Your task to perform on an android device: Go to Reddit.com Image 0: 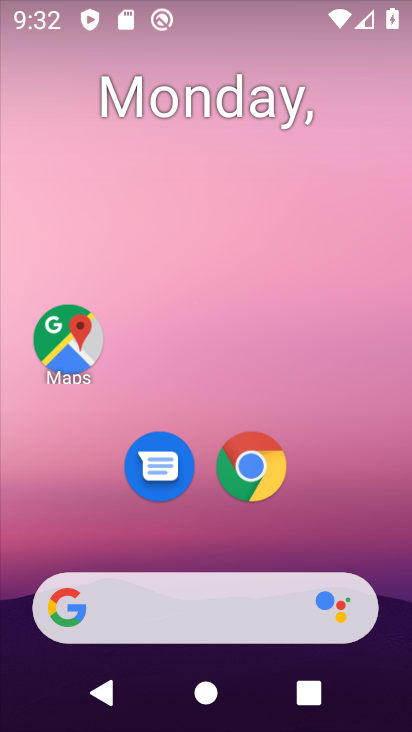
Step 0: press home button
Your task to perform on an android device: Go to Reddit.com Image 1: 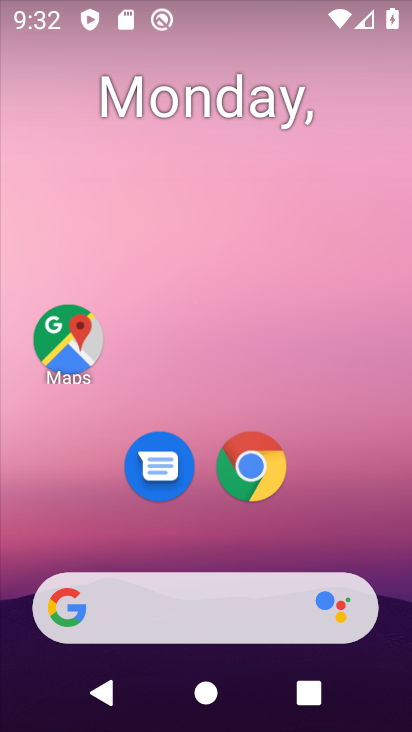
Step 1: drag from (353, 552) to (409, 94)
Your task to perform on an android device: Go to Reddit.com Image 2: 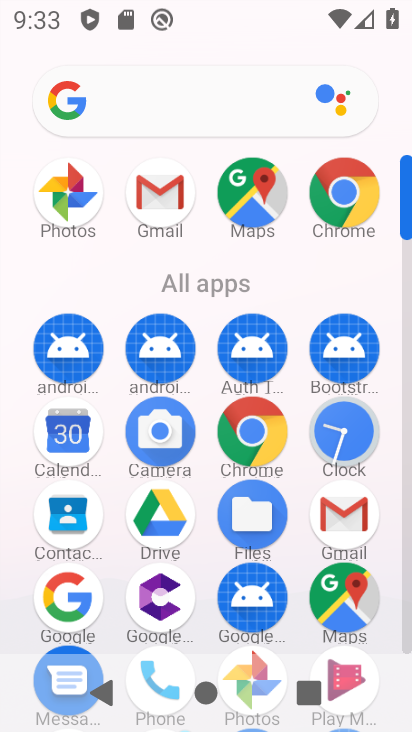
Step 2: drag from (294, 556) to (295, 243)
Your task to perform on an android device: Go to Reddit.com Image 3: 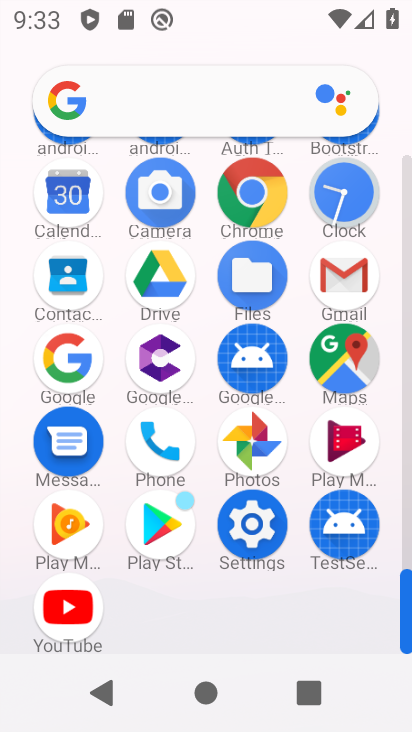
Step 3: click (268, 169)
Your task to perform on an android device: Go to Reddit.com Image 4: 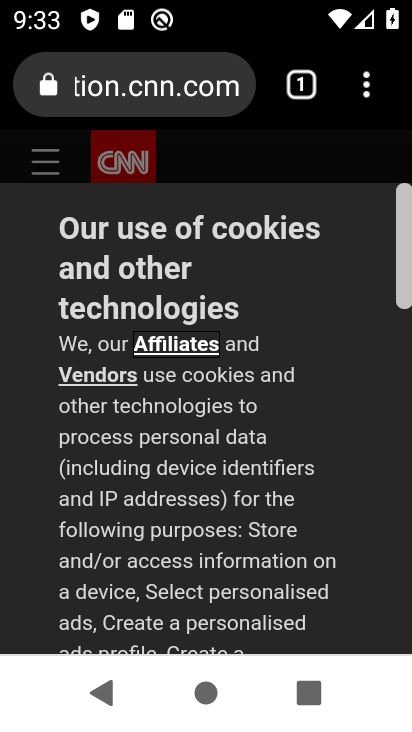
Step 4: click (115, 93)
Your task to perform on an android device: Go to Reddit.com Image 5: 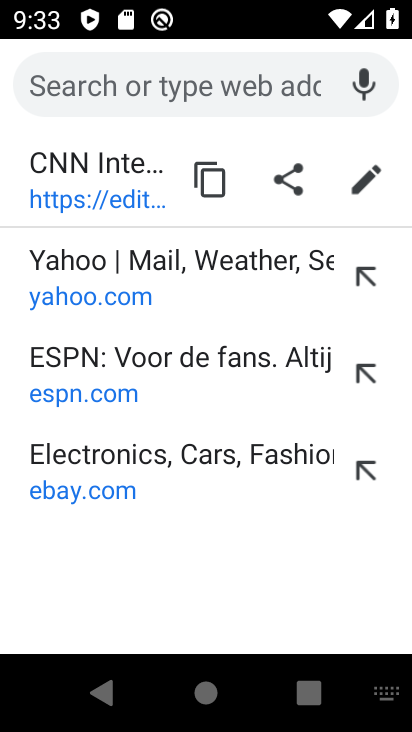
Step 5: type "Reddit.com"
Your task to perform on an android device: Go to Reddit.com Image 6: 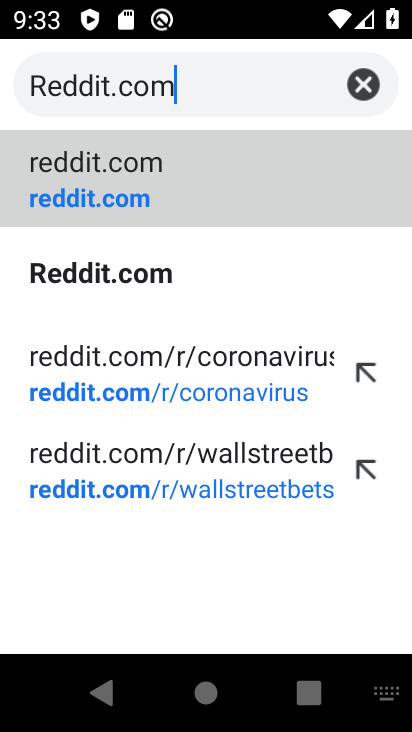
Step 6: type ""
Your task to perform on an android device: Go to Reddit.com Image 7: 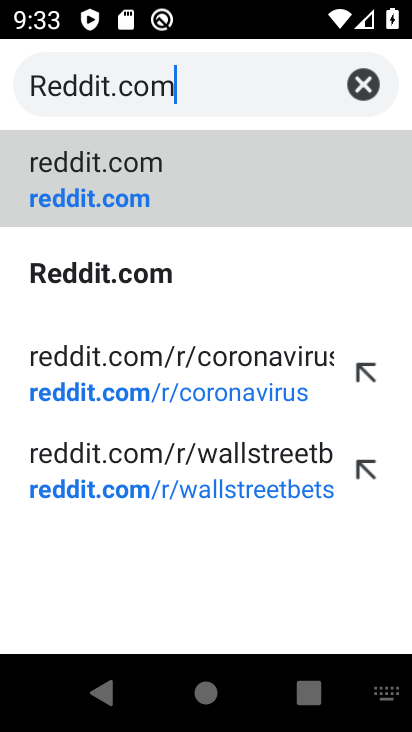
Step 7: click (177, 183)
Your task to perform on an android device: Go to Reddit.com Image 8: 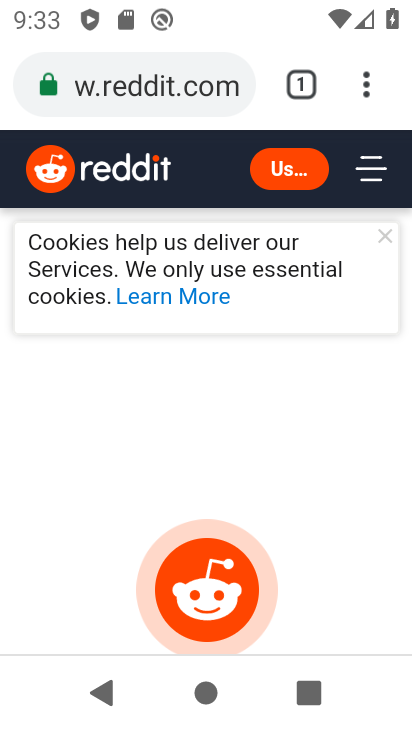
Step 8: task complete